Your task to perform on an android device: Find coffee shops on Maps Image 0: 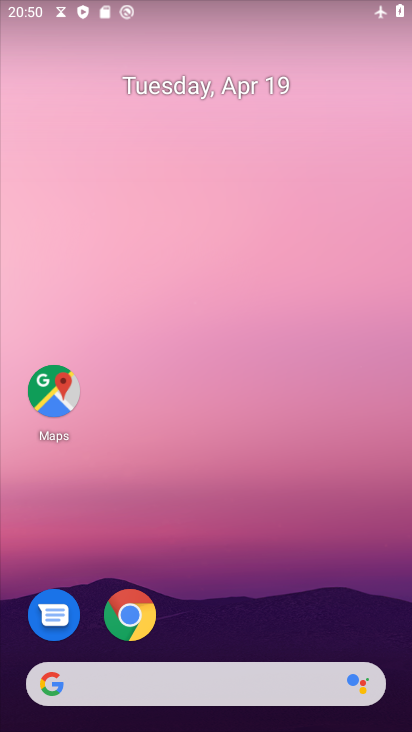
Step 0: drag from (371, 598) to (301, 104)
Your task to perform on an android device: Find coffee shops on Maps Image 1: 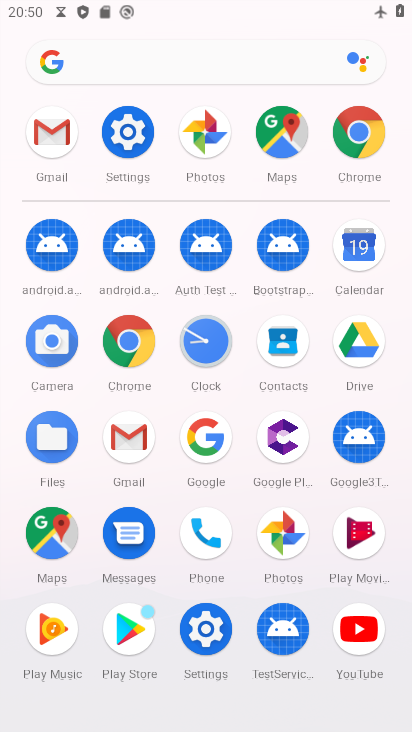
Step 1: click (48, 524)
Your task to perform on an android device: Find coffee shops on Maps Image 2: 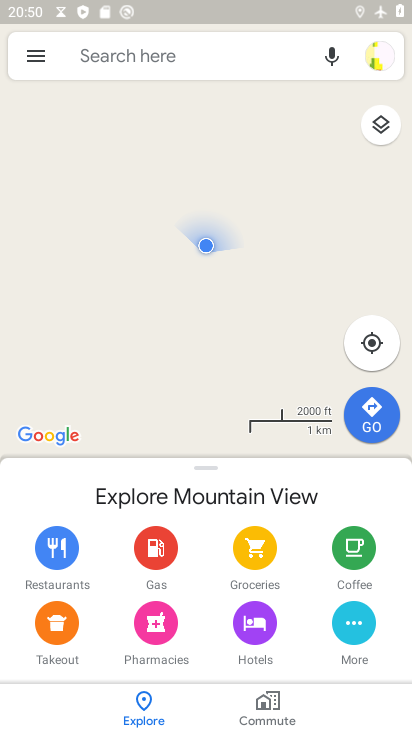
Step 2: click (215, 61)
Your task to perform on an android device: Find coffee shops on Maps Image 3: 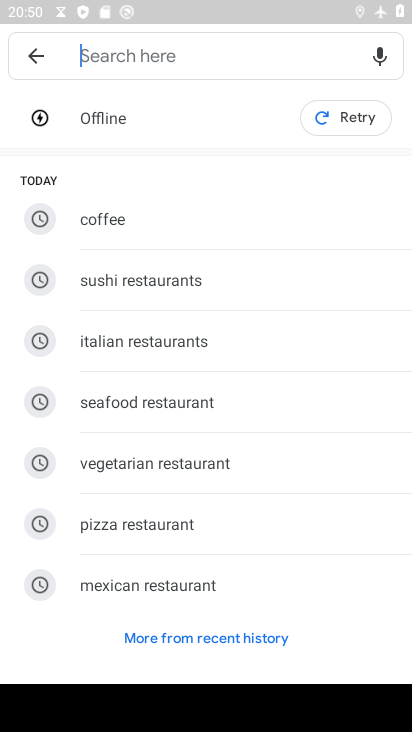
Step 3: type "coffee shops "
Your task to perform on an android device: Find coffee shops on Maps Image 4: 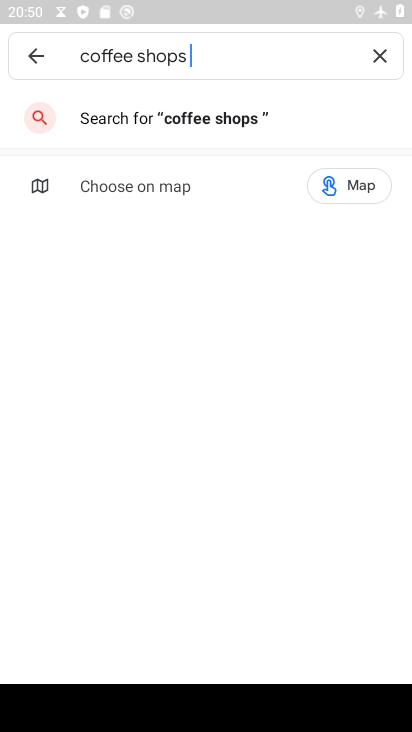
Step 4: type ""
Your task to perform on an android device: Find coffee shops on Maps Image 5: 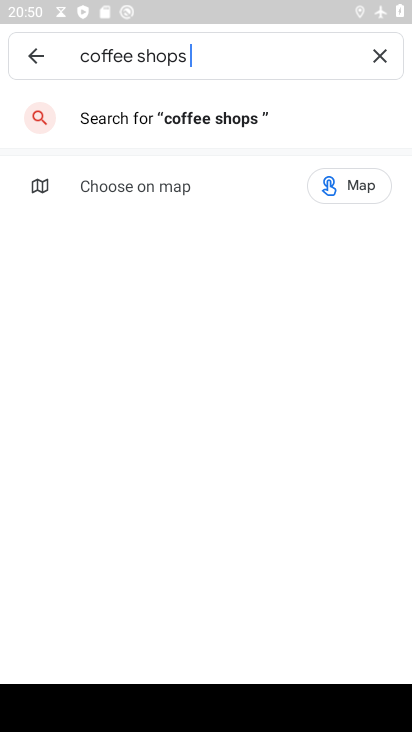
Step 5: click (201, 108)
Your task to perform on an android device: Find coffee shops on Maps Image 6: 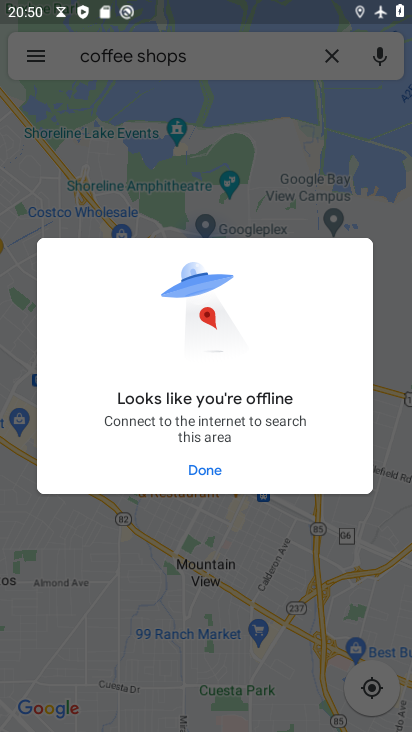
Step 6: task complete